Your task to perform on an android device: Open my contact list Image 0: 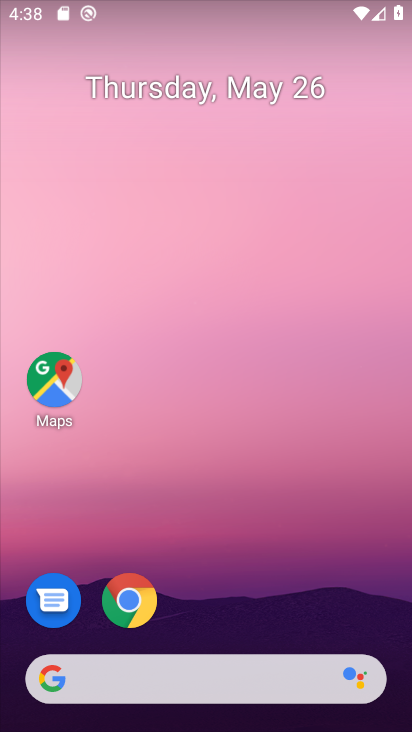
Step 0: drag from (225, 632) to (317, 102)
Your task to perform on an android device: Open my contact list Image 1: 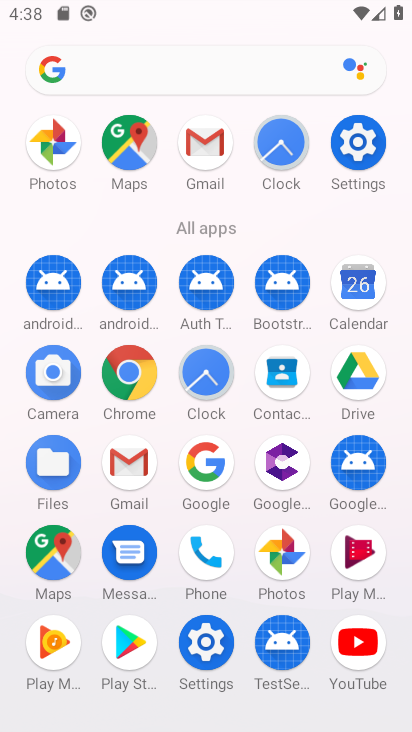
Step 1: click (294, 381)
Your task to perform on an android device: Open my contact list Image 2: 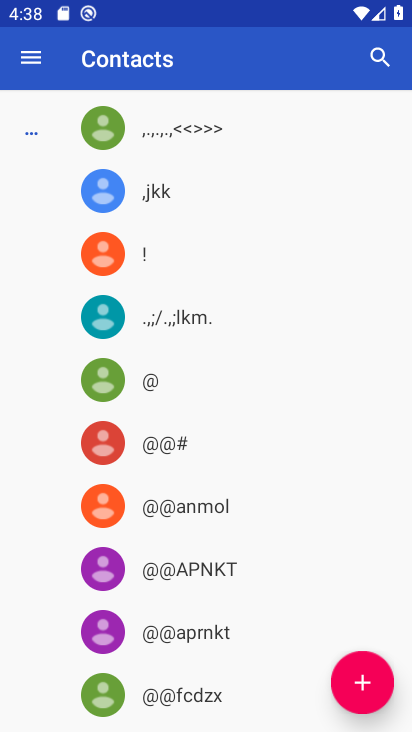
Step 2: task complete